Your task to perform on an android device: find photos in the google photos app Image 0: 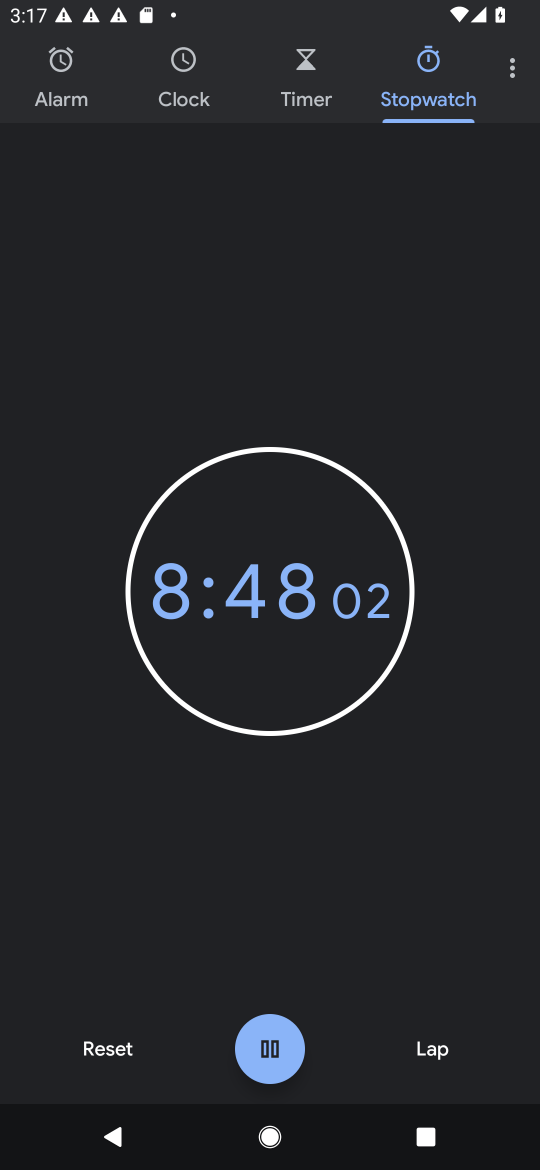
Step 0: press home button
Your task to perform on an android device: find photos in the google photos app Image 1: 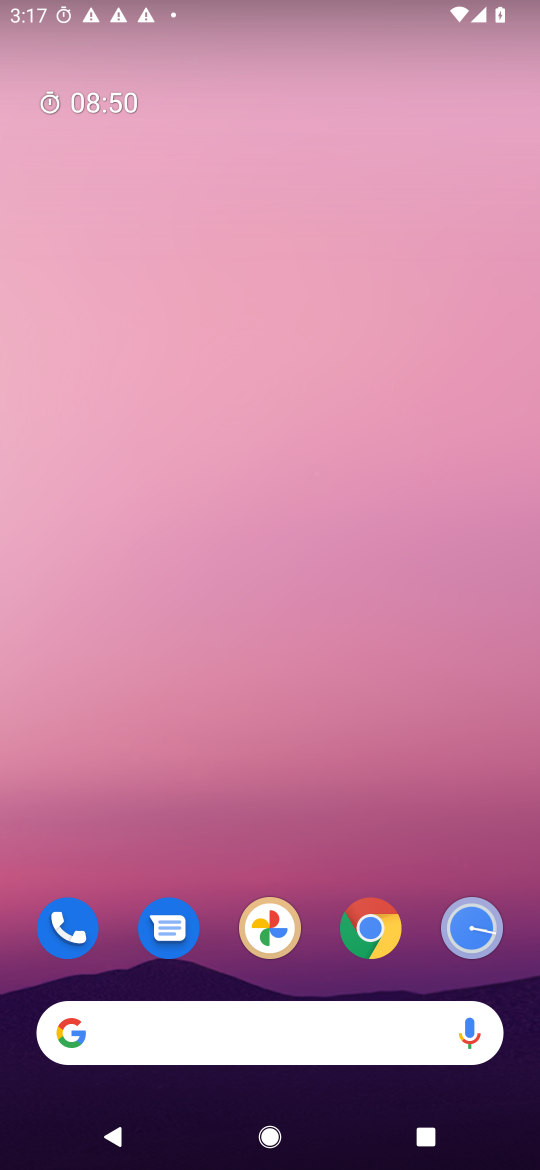
Step 1: click (272, 939)
Your task to perform on an android device: find photos in the google photos app Image 2: 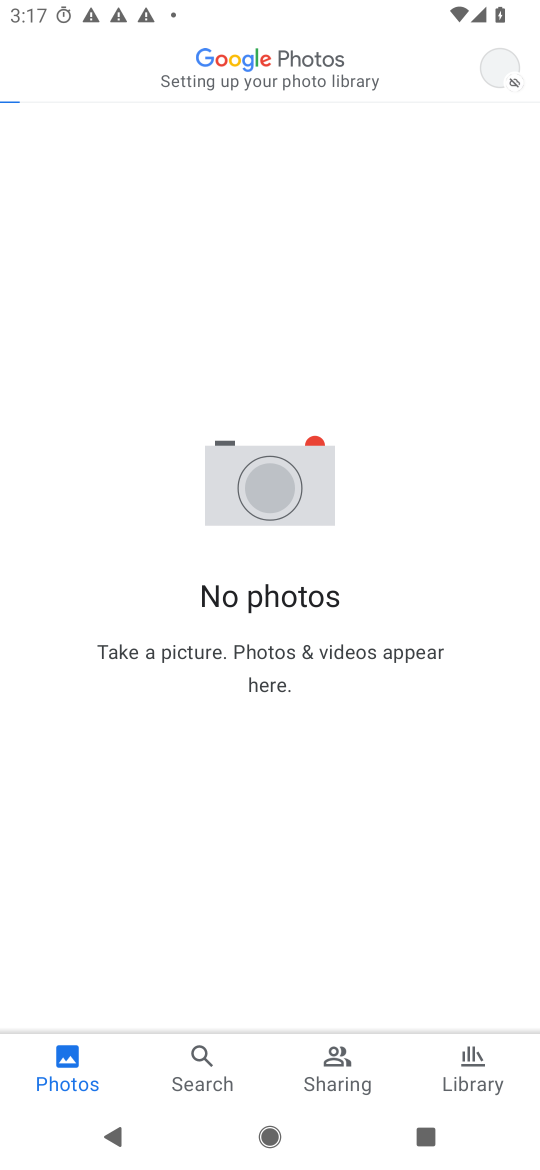
Step 2: task complete